Your task to perform on an android device: Clear the cart on target.com. Search for razer nari on target.com, select the first entry, add it to the cart, then select checkout. Image 0: 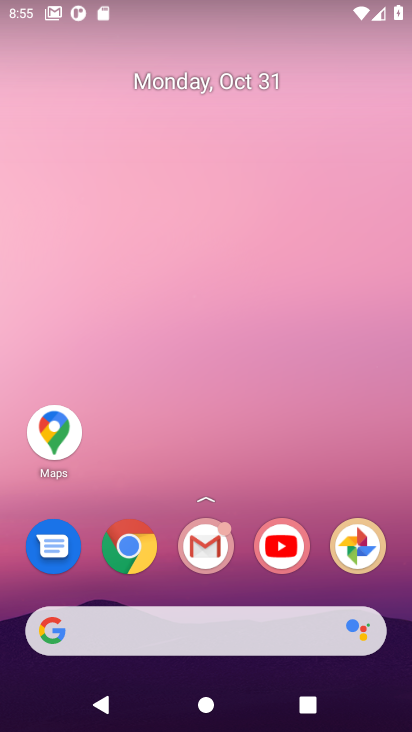
Step 0: drag from (241, 603) to (4, 58)
Your task to perform on an android device: Clear the cart on target.com. Search for razer nari on target.com, select the first entry, add it to the cart, then select checkout. Image 1: 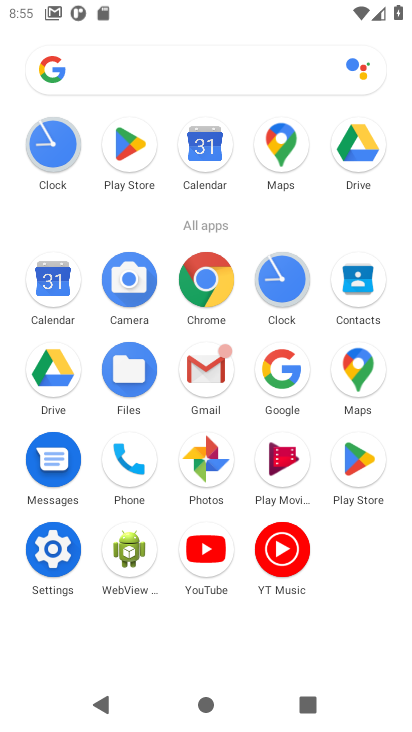
Step 1: click (208, 289)
Your task to perform on an android device: Clear the cart on target.com. Search for razer nari on target.com, select the first entry, add it to the cart, then select checkout. Image 2: 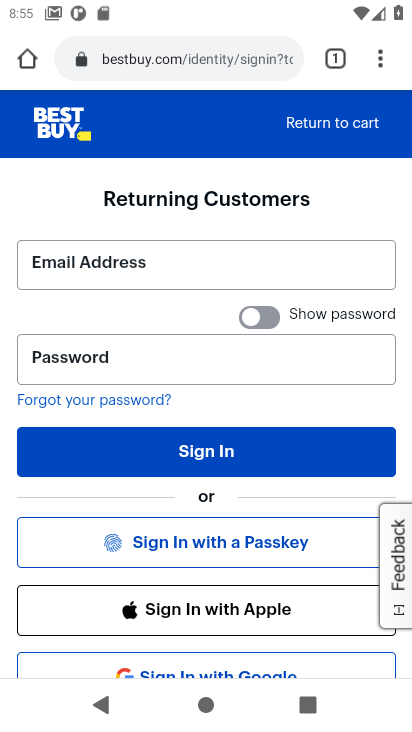
Step 2: click (223, 52)
Your task to perform on an android device: Clear the cart on target.com. Search for razer nari on target.com, select the first entry, add it to the cart, then select checkout. Image 3: 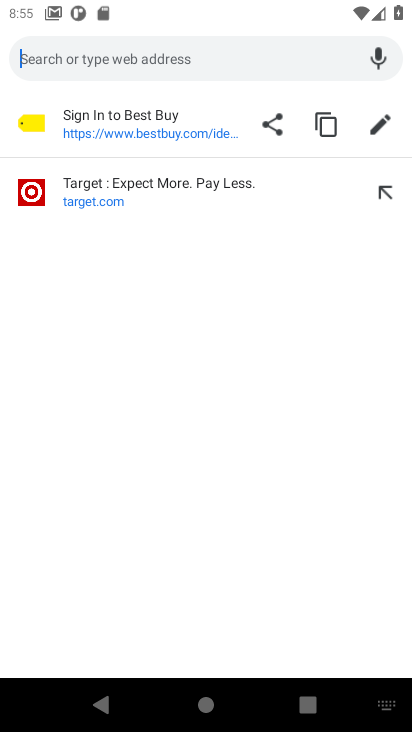
Step 3: click (43, 195)
Your task to perform on an android device: Clear the cart on target.com. Search for razer nari on target.com, select the first entry, add it to the cart, then select checkout. Image 4: 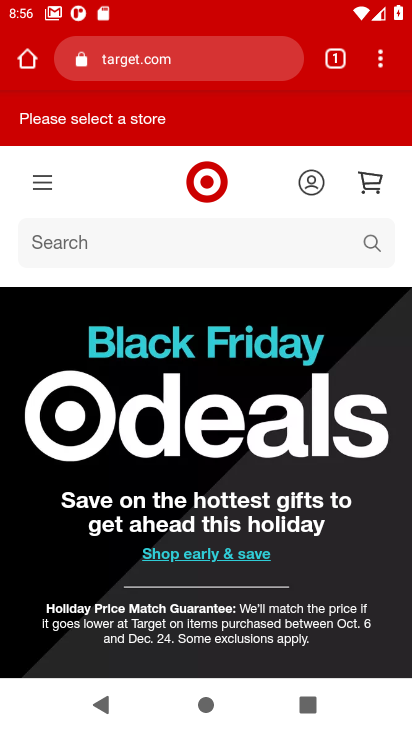
Step 4: click (172, 245)
Your task to perform on an android device: Clear the cart on target.com. Search for razer nari on target.com, select the first entry, add it to the cart, then select checkout. Image 5: 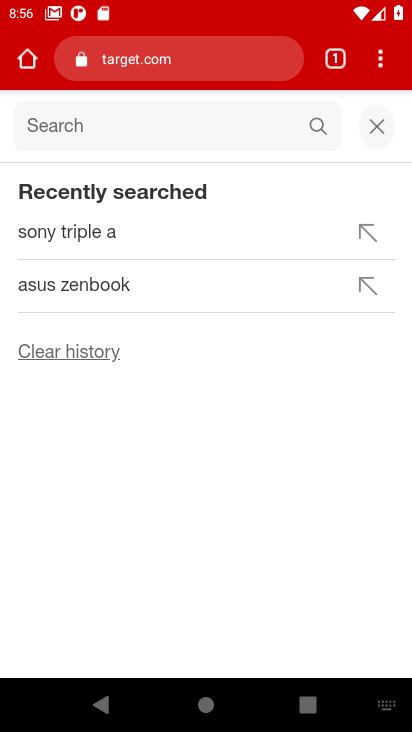
Step 5: type " razer nari "
Your task to perform on an android device: Clear the cart on target.com. Search for razer nari on target.com, select the first entry, add it to the cart, then select checkout. Image 6: 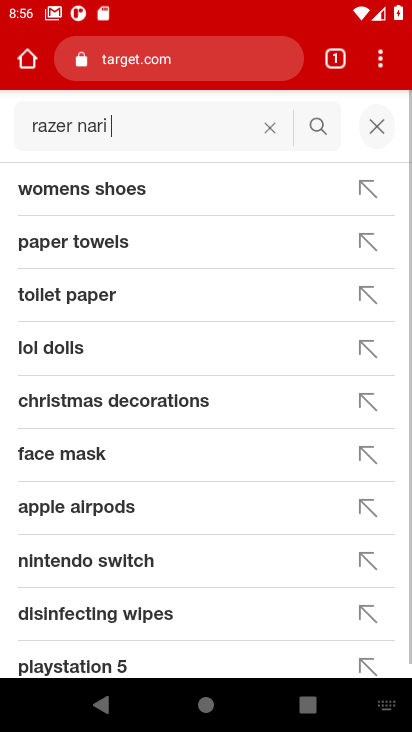
Step 6: press enter
Your task to perform on an android device: Clear the cart on target.com. Search for razer nari on target.com, select the first entry, add it to the cart, then select checkout. Image 7: 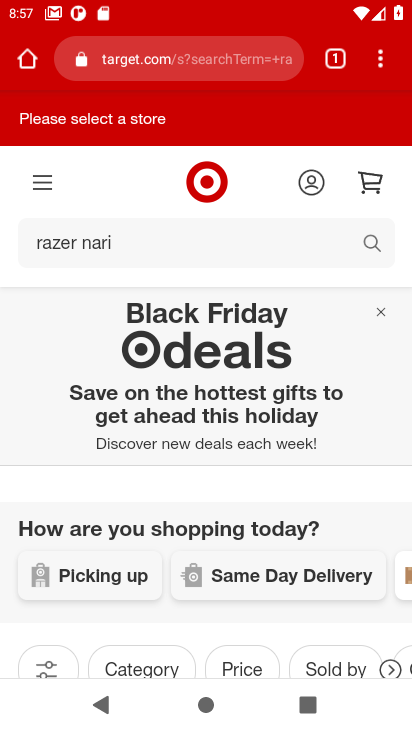
Step 7: drag from (287, 545) to (202, 149)
Your task to perform on an android device: Clear the cart on target.com. Search for razer nari on target.com, select the first entry, add it to the cart, then select checkout. Image 8: 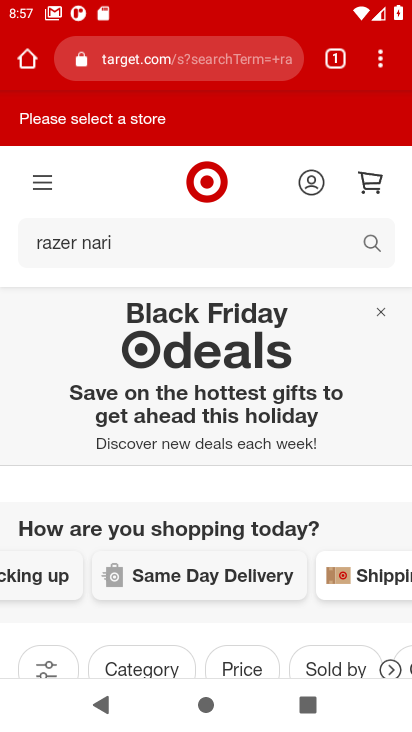
Step 8: drag from (323, 479) to (316, 219)
Your task to perform on an android device: Clear the cart on target.com. Search for razer nari on target.com, select the first entry, add it to the cart, then select checkout. Image 9: 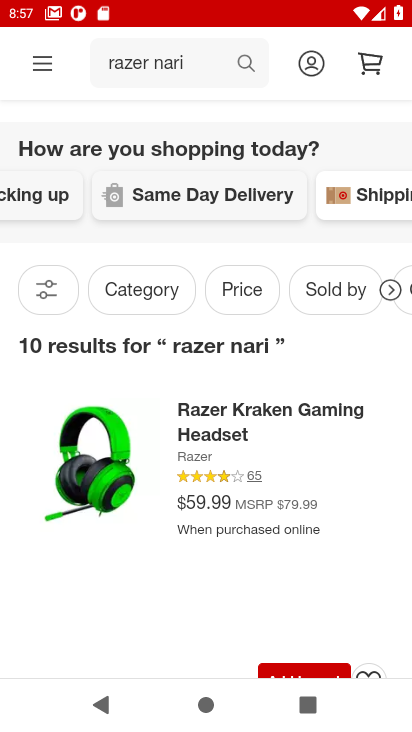
Step 9: drag from (298, 438) to (249, 82)
Your task to perform on an android device: Clear the cart on target.com. Search for razer nari on target.com, select the first entry, add it to the cart, then select checkout. Image 10: 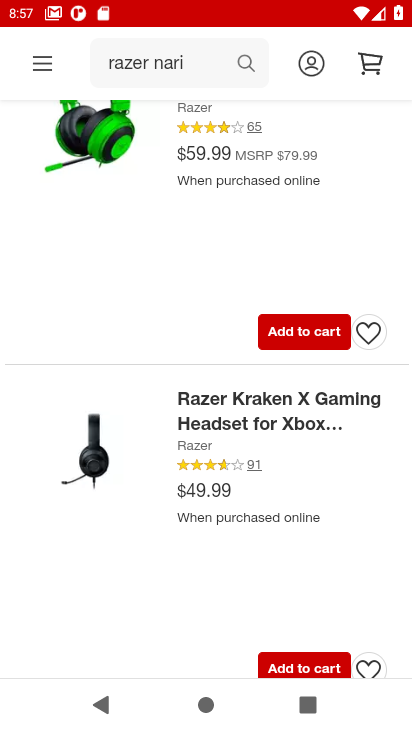
Step 10: drag from (275, 185) to (321, 447)
Your task to perform on an android device: Clear the cart on target.com. Search for razer nari on target.com, select the first entry, add it to the cart, then select checkout. Image 11: 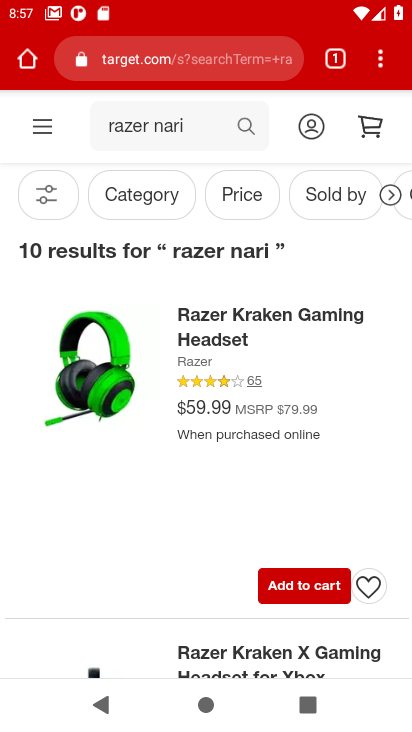
Step 11: click (304, 580)
Your task to perform on an android device: Clear the cart on target.com. Search for razer nari on target.com, select the first entry, add it to the cart, then select checkout. Image 12: 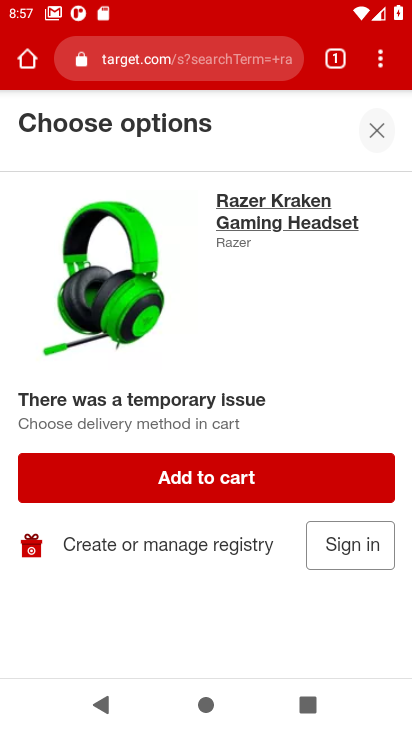
Step 12: click (249, 475)
Your task to perform on an android device: Clear the cart on target.com. Search for razer nari on target.com, select the first entry, add it to the cart, then select checkout. Image 13: 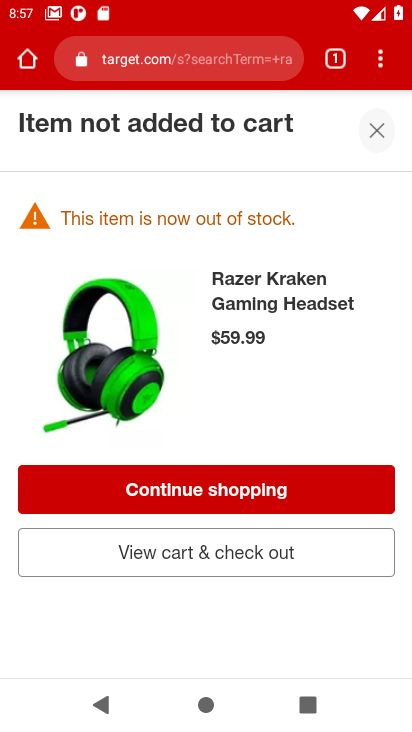
Step 13: click (230, 552)
Your task to perform on an android device: Clear the cart on target.com. Search for razer nari on target.com, select the first entry, add it to the cart, then select checkout. Image 14: 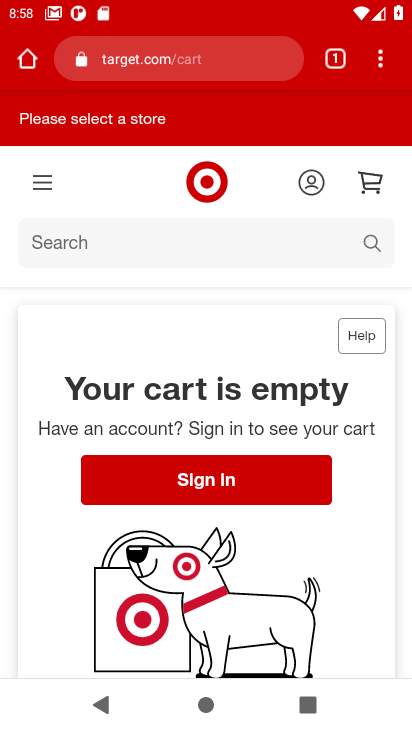
Step 14: task complete